Your task to perform on an android device: see tabs open on other devices in the chrome app Image 0: 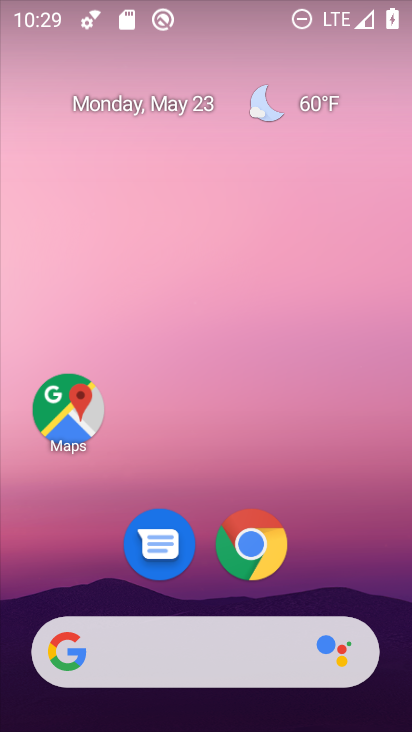
Step 0: click (258, 545)
Your task to perform on an android device: see tabs open on other devices in the chrome app Image 1: 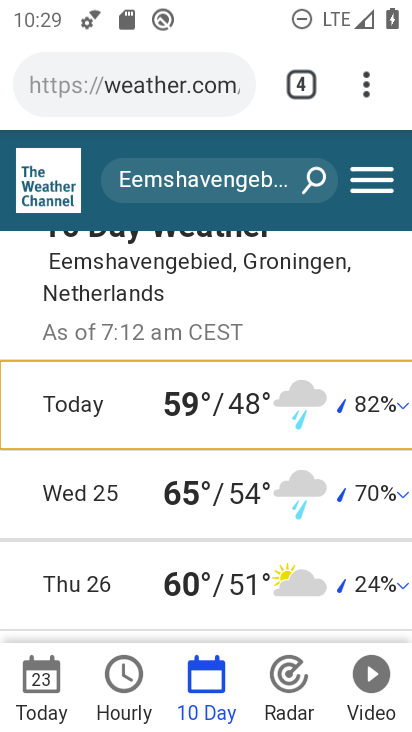
Step 1: click (369, 76)
Your task to perform on an android device: see tabs open on other devices in the chrome app Image 2: 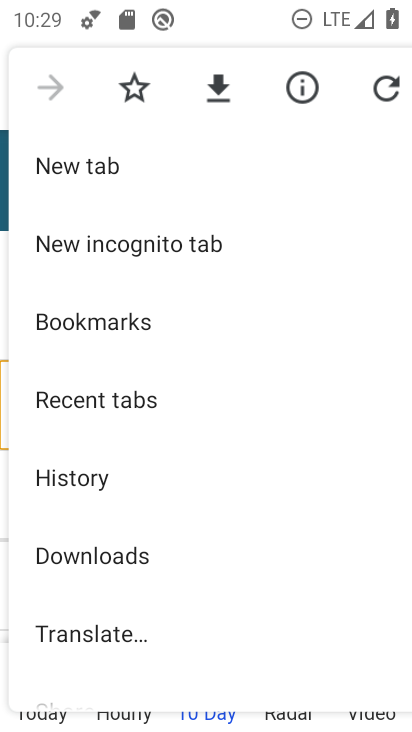
Step 2: click (134, 400)
Your task to perform on an android device: see tabs open on other devices in the chrome app Image 3: 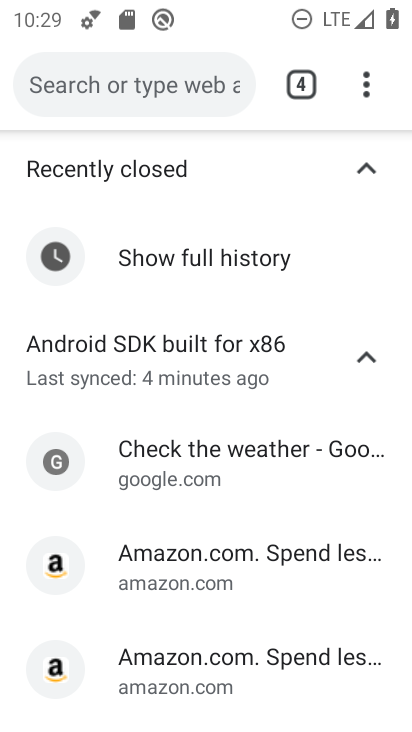
Step 3: task complete